Your task to perform on an android device: check android version Image 0: 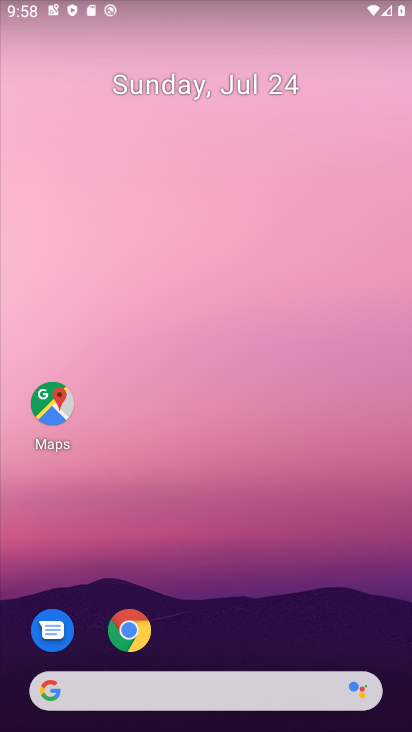
Step 0: drag from (192, 635) to (156, 80)
Your task to perform on an android device: check android version Image 1: 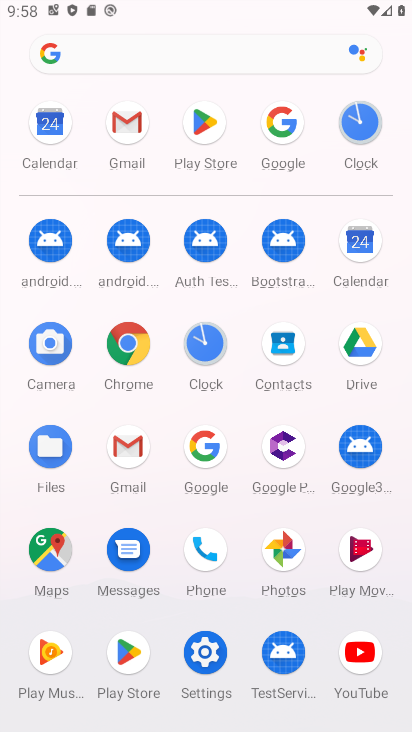
Step 1: click (296, 125)
Your task to perform on an android device: check android version Image 2: 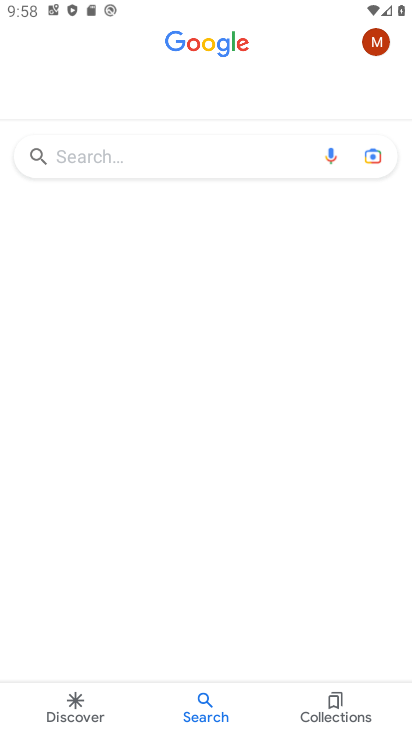
Step 2: click (373, 35)
Your task to perform on an android device: check android version Image 3: 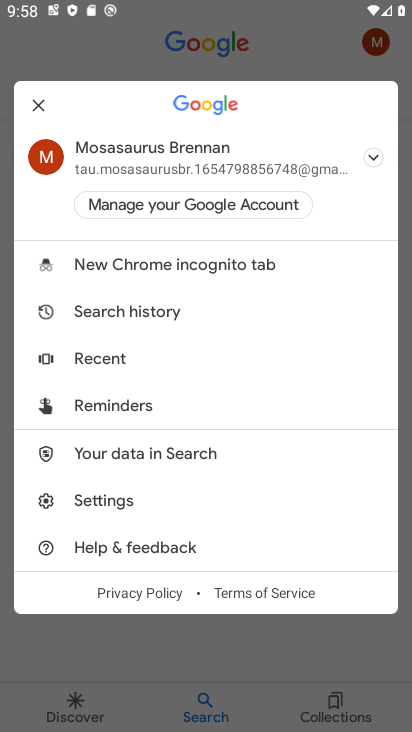
Step 3: click (127, 507)
Your task to perform on an android device: check android version Image 4: 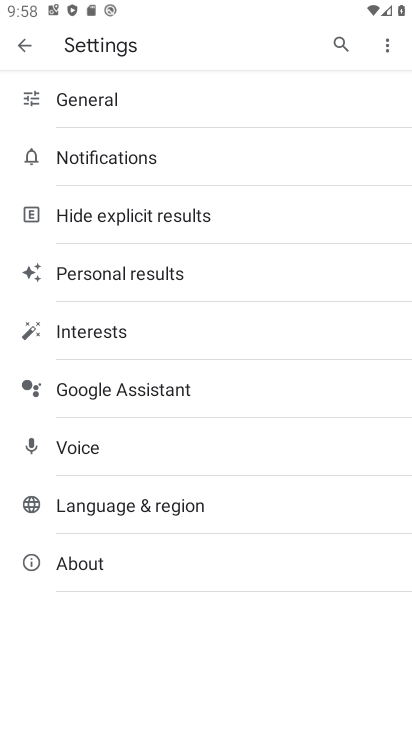
Step 4: click (103, 566)
Your task to perform on an android device: check android version Image 5: 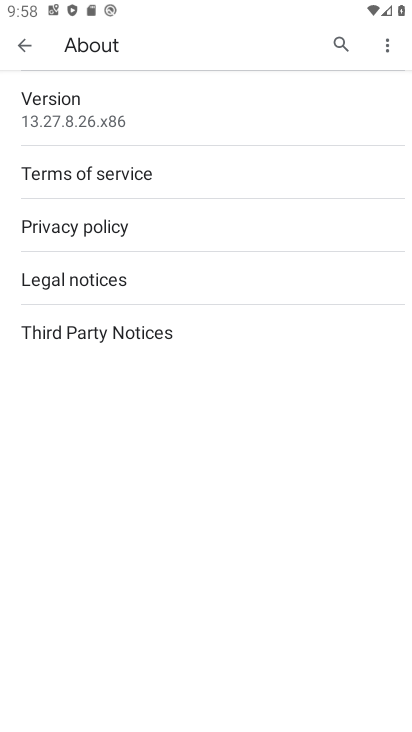
Step 5: click (113, 107)
Your task to perform on an android device: check android version Image 6: 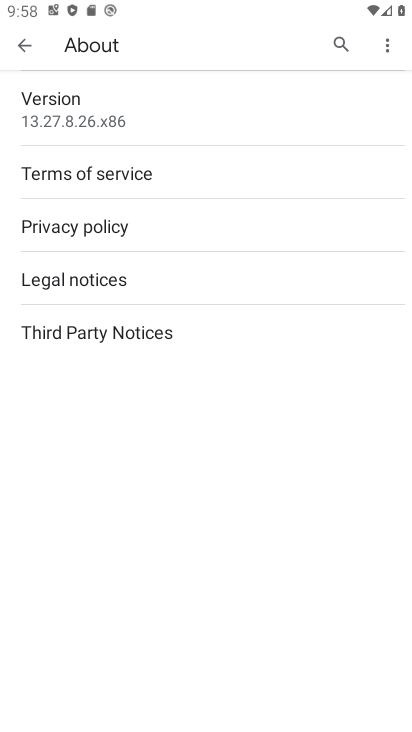
Step 6: task complete